Your task to perform on an android device: open wifi settings Image 0: 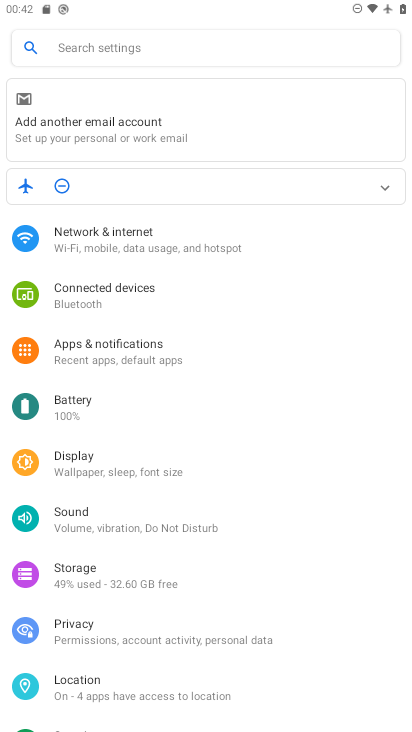
Step 0: click (160, 235)
Your task to perform on an android device: open wifi settings Image 1: 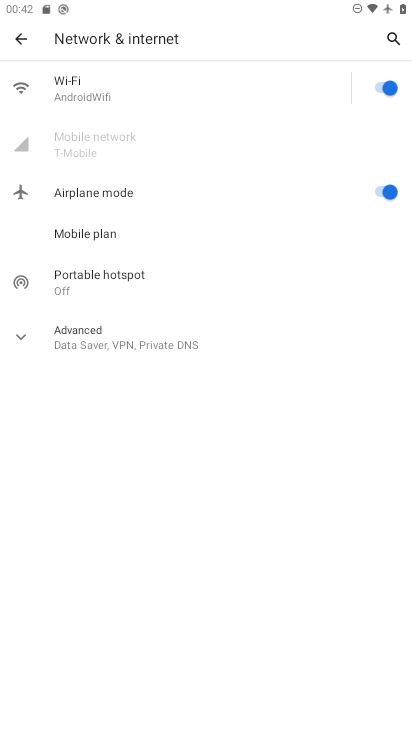
Step 1: click (118, 94)
Your task to perform on an android device: open wifi settings Image 2: 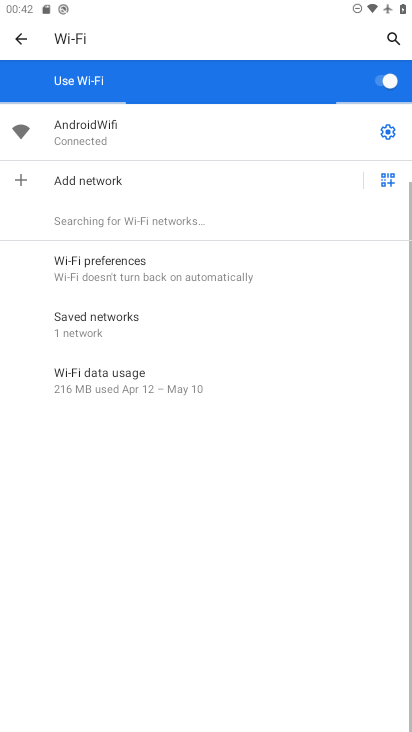
Step 2: task complete